Your task to perform on an android device: turn on improve location accuracy Image 0: 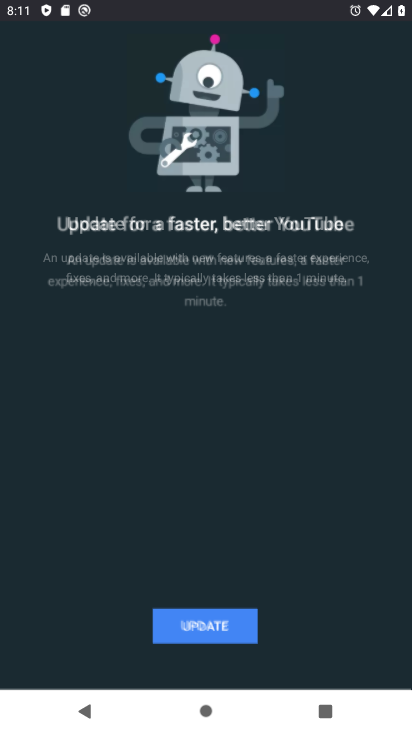
Step 0: drag from (351, 649) to (291, 122)
Your task to perform on an android device: turn on improve location accuracy Image 1: 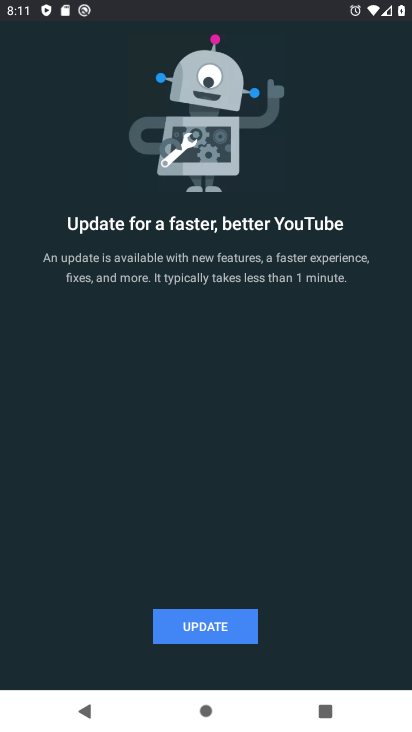
Step 1: press back button
Your task to perform on an android device: turn on improve location accuracy Image 2: 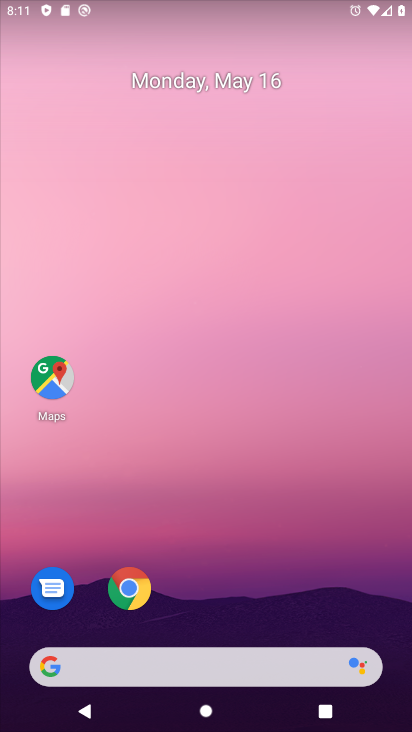
Step 2: click (95, 149)
Your task to perform on an android device: turn on improve location accuracy Image 3: 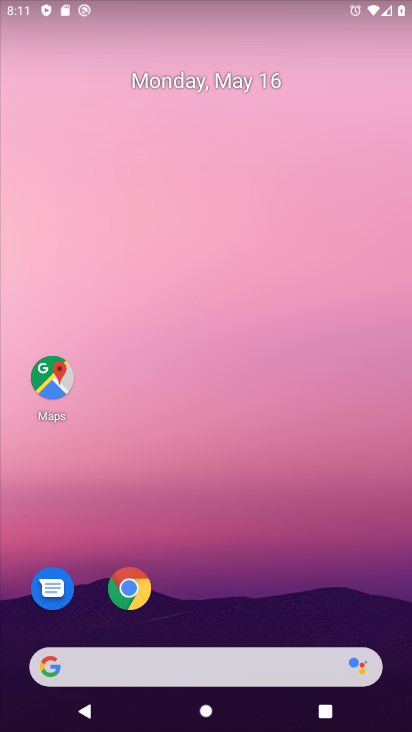
Step 3: drag from (313, 685) to (235, 35)
Your task to perform on an android device: turn on improve location accuracy Image 4: 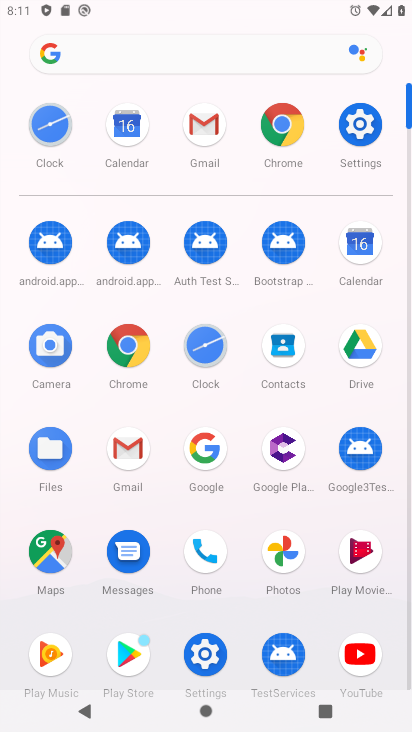
Step 4: drag from (279, 582) to (216, 182)
Your task to perform on an android device: turn on improve location accuracy Image 5: 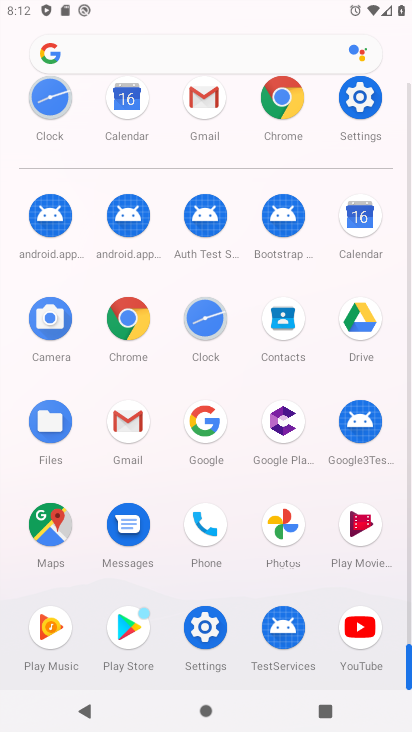
Step 5: click (356, 98)
Your task to perform on an android device: turn on improve location accuracy Image 6: 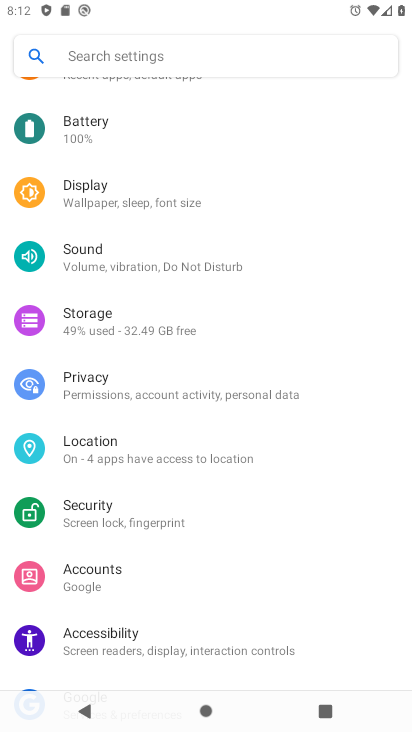
Step 6: click (120, 437)
Your task to perform on an android device: turn on improve location accuracy Image 7: 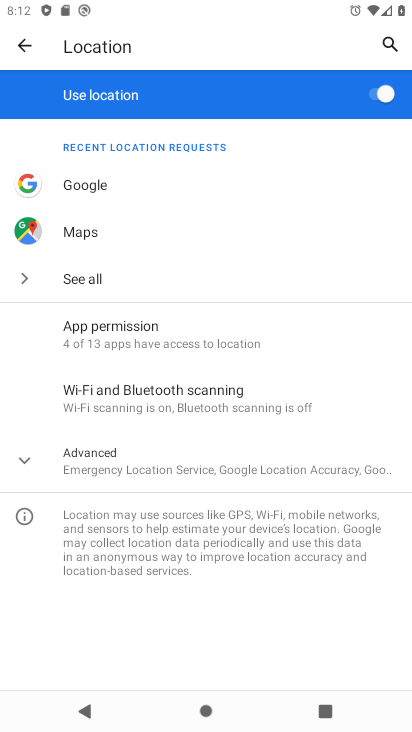
Step 7: click (118, 458)
Your task to perform on an android device: turn on improve location accuracy Image 8: 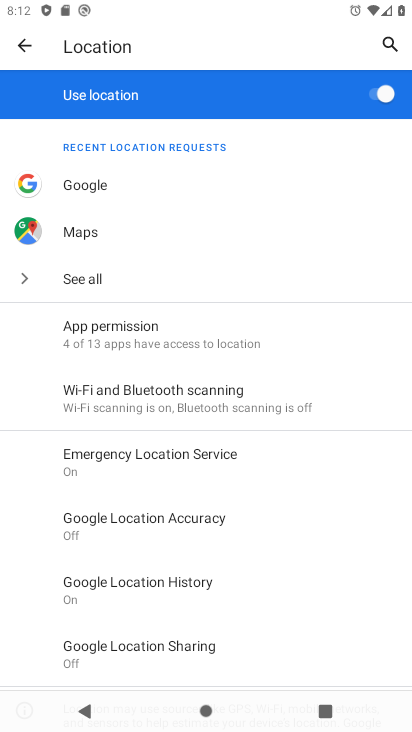
Step 8: drag from (152, 664) to (147, 303)
Your task to perform on an android device: turn on improve location accuracy Image 9: 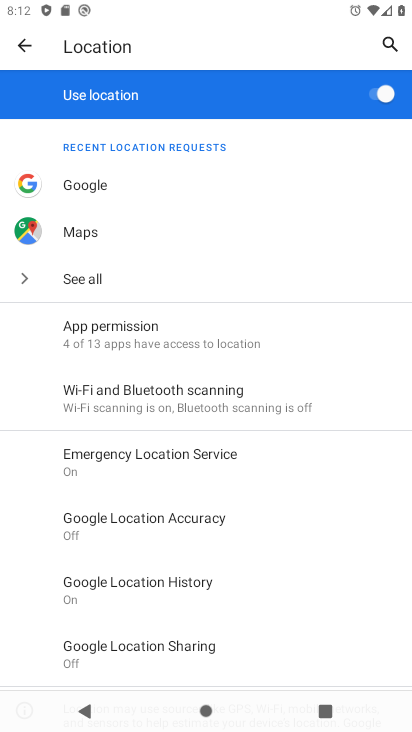
Step 9: click (125, 520)
Your task to perform on an android device: turn on improve location accuracy Image 10: 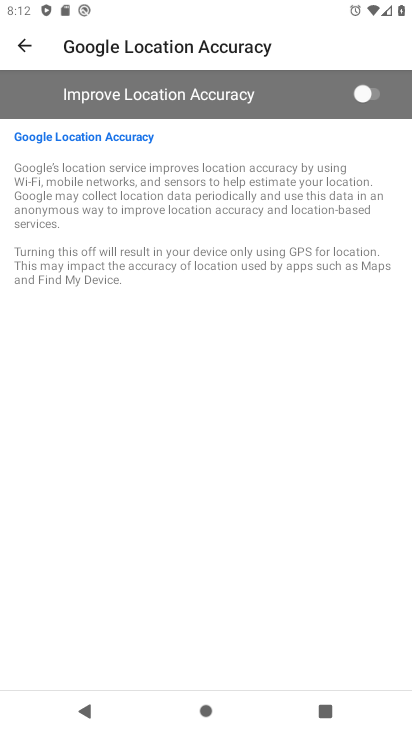
Step 10: click (364, 77)
Your task to perform on an android device: turn on improve location accuracy Image 11: 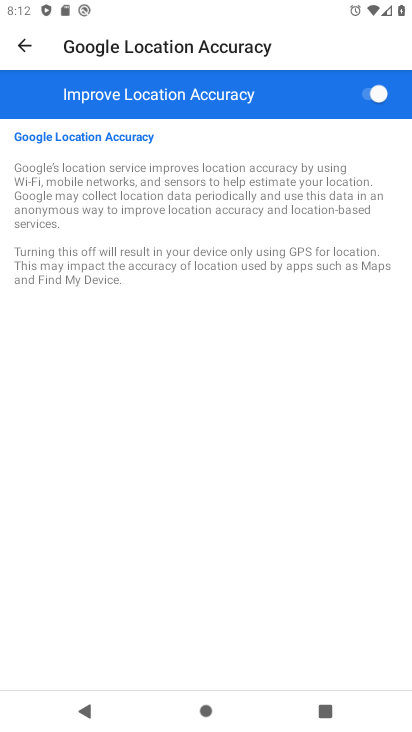
Step 11: task complete